Your task to perform on an android device: Do I have any events this weekend? Image 0: 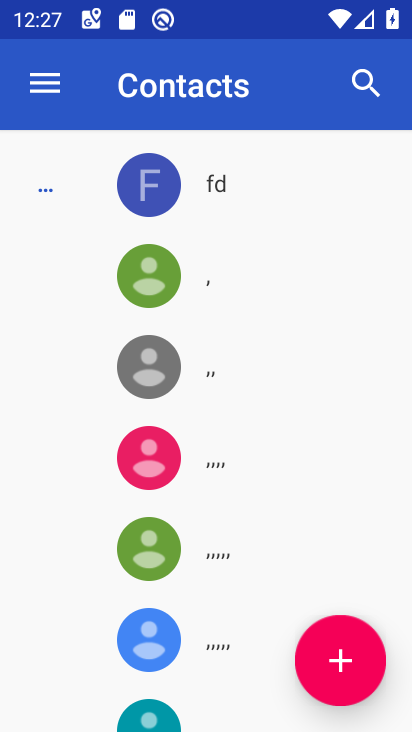
Step 0: press home button
Your task to perform on an android device: Do I have any events this weekend? Image 1: 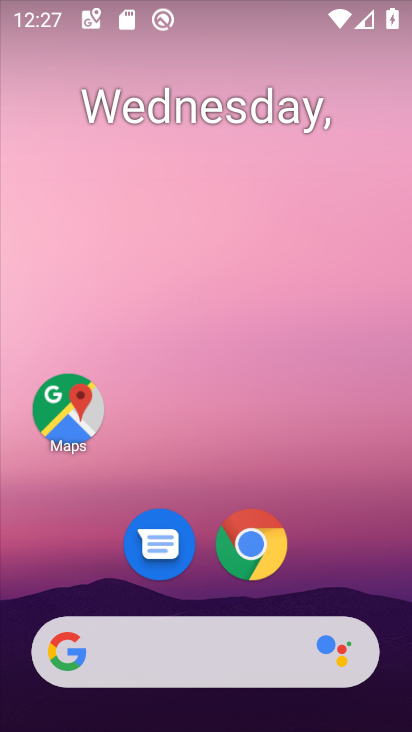
Step 1: drag from (209, 490) to (203, 246)
Your task to perform on an android device: Do I have any events this weekend? Image 2: 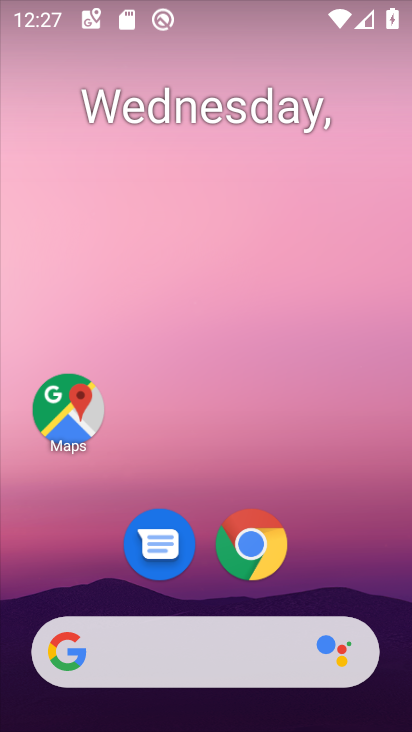
Step 2: drag from (213, 486) to (188, 144)
Your task to perform on an android device: Do I have any events this weekend? Image 3: 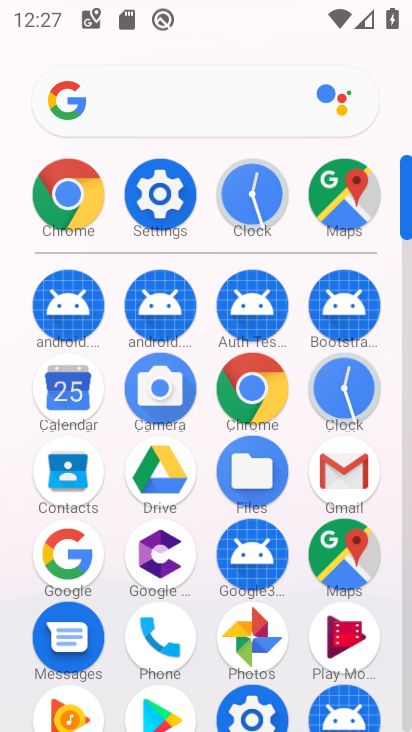
Step 3: click (77, 401)
Your task to perform on an android device: Do I have any events this weekend? Image 4: 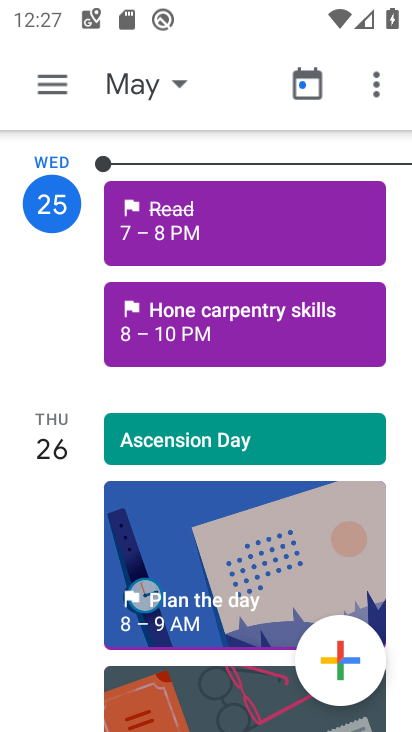
Step 4: task complete